Your task to perform on an android device: Open internet settings Image 0: 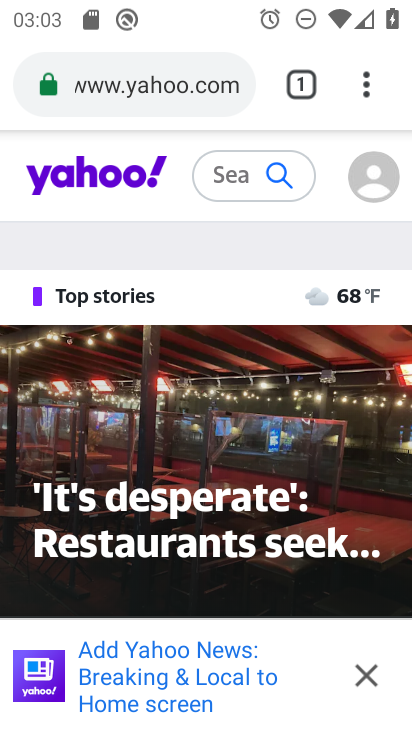
Step 0: press home button
Your task to perform on an android device: Open internet settings Image 1: 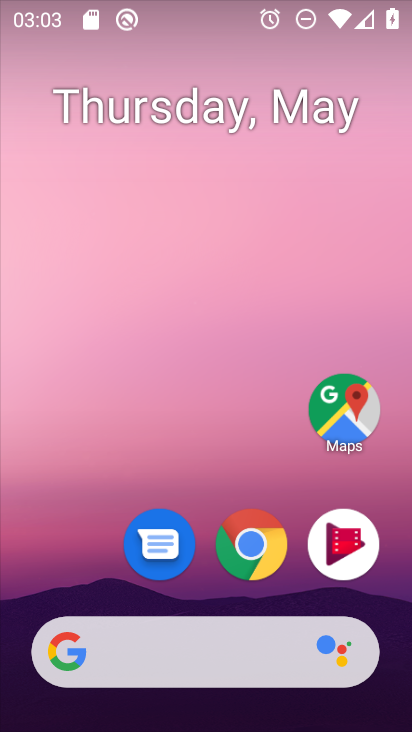
Step 1: drag from (53, 575) to (58, 168)
Your task to perform on an android device: Open internet settings Image 2: 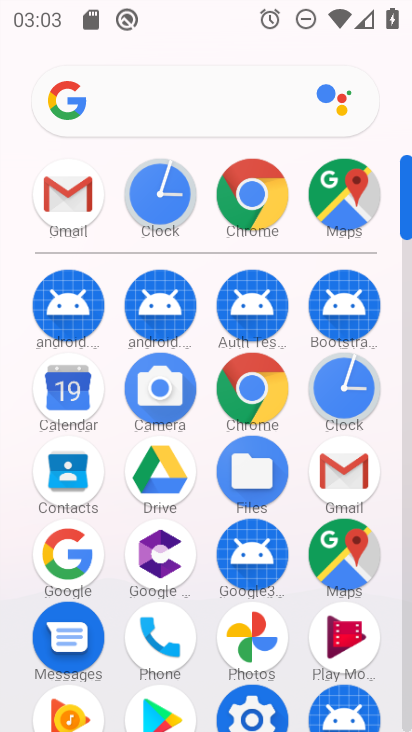
Step 2: drag from (27, 585) to (0, 446)
Your task to perform on an android device: Open internet settings Image 3: 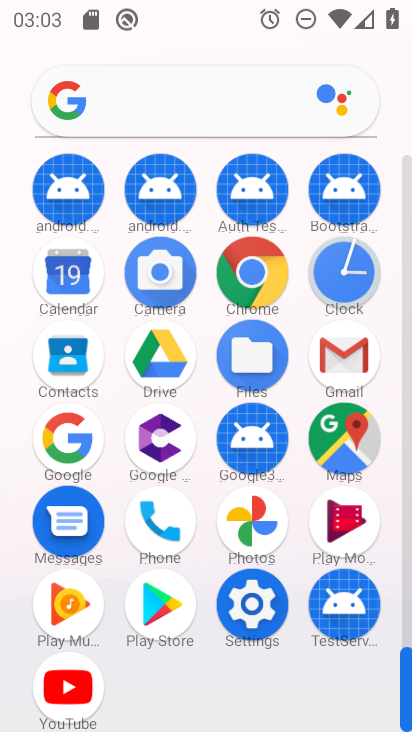
Step 3: click (259, 620)
Your task to perform on an android device: Open internet settings Image 4: 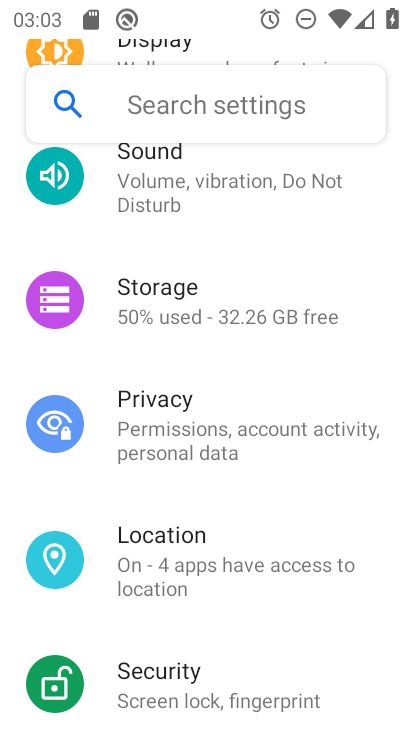
Step 4: drag from (360, 669) to (375, 561)
Your task to perform on an android device: Open internet settings Image 5: 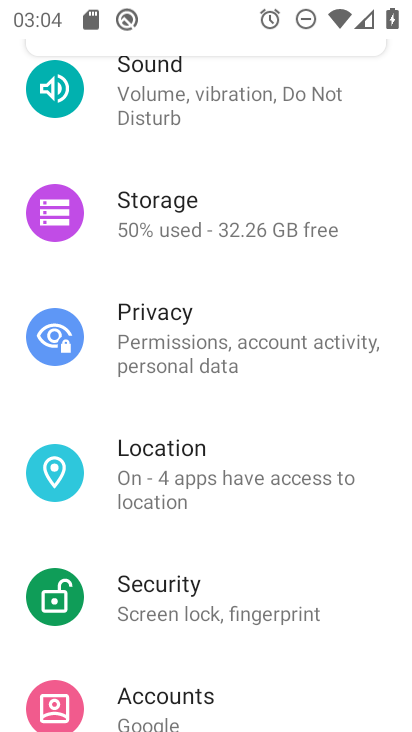
Step 5: drag from (362, 684) to (358, 516)
Your task to perform on an android device: Open internet settings Image 6: 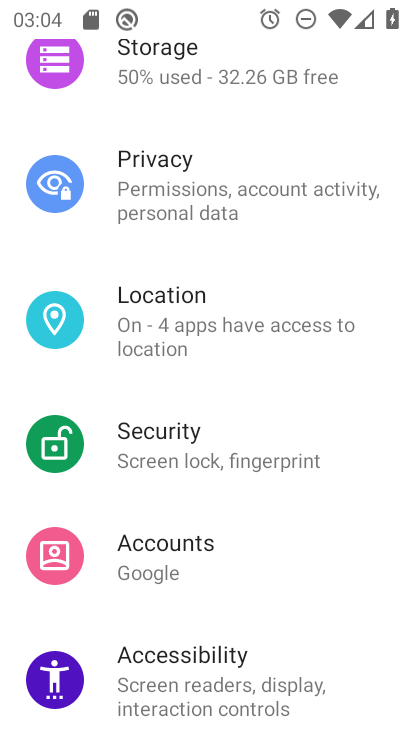
Step 6: drag from (345, 648) to (350, 457)
Your task to perform on an android device: Open internet settings Image 7: 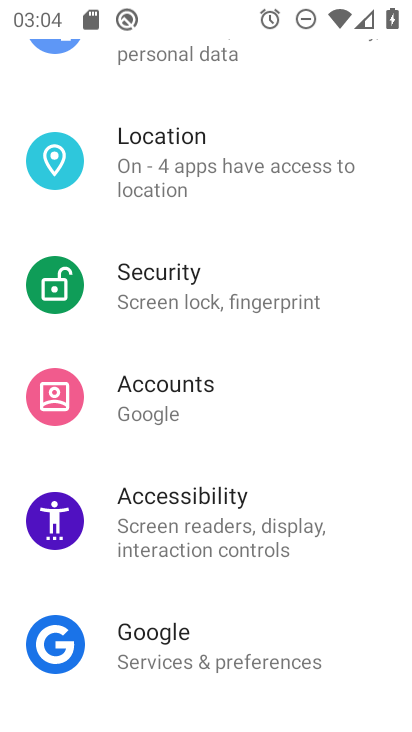
Step 7: drag from (372, 275) to (369, 328)
Your task to perform on an android device: Open internet settings Image 8: 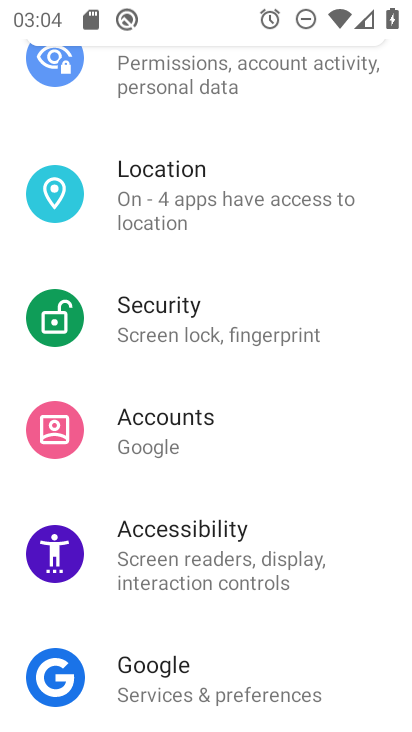
Step 8: drag from (369, 250) to (372, 375)
Your task to perform on an android device: Open internet settings Image 9: 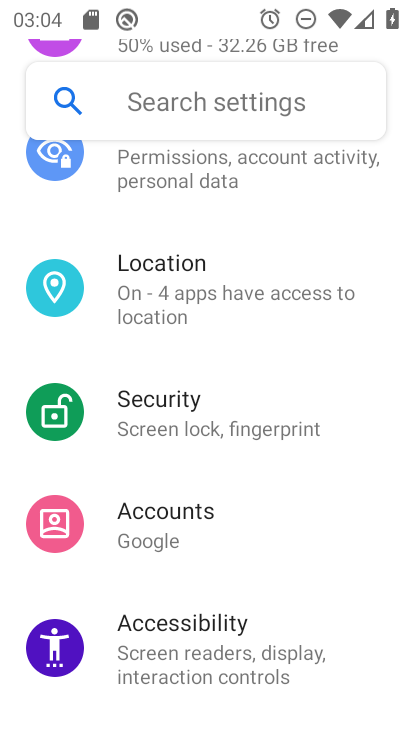
Step 9: drag from (369, 234) to (362, 349)
Your task to perform on an android device: Open internet settings Image 10: 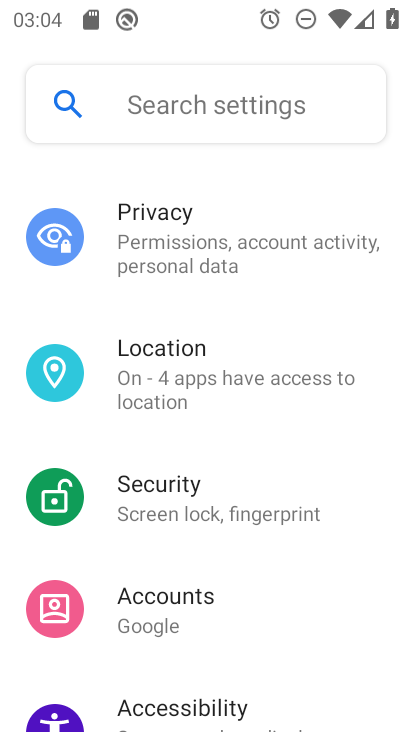
Step 10: drag from (366, 200) to (352, 323)
Your task to perform on an android device: Open internet settings Image 11: 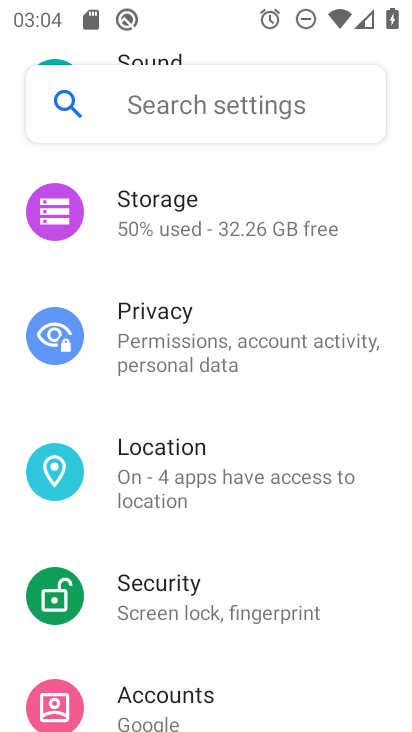
Step 11: drag from (343, 228) to (337, 310)
Your task to perform on an android device: Open internet settings Image 12: 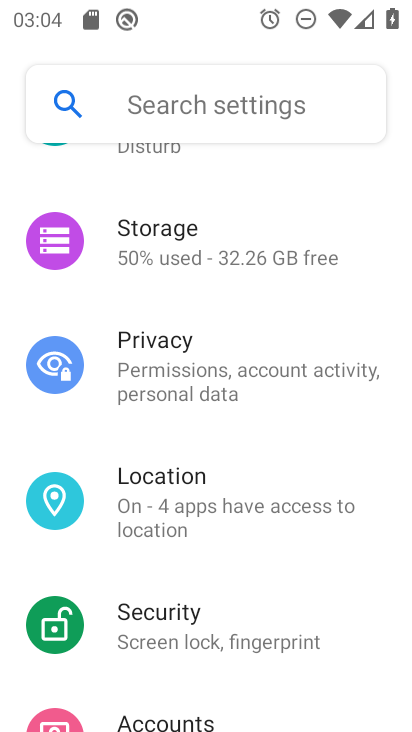
Step 12: drag from (346, 238) to (348, 405)
Your task to perform on an android device: Open internet settings Image 13: 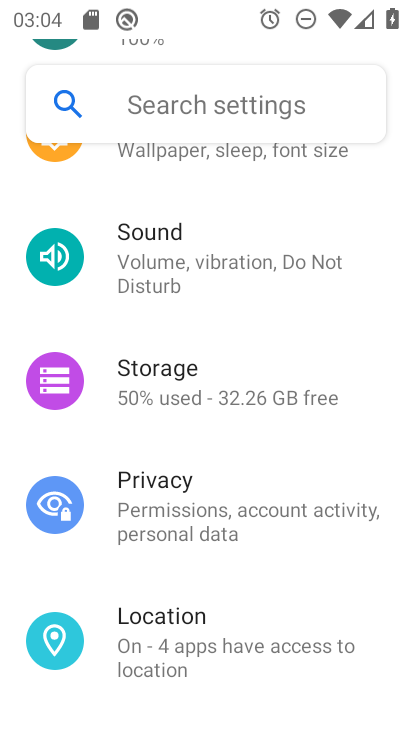
Step 13: drag from (354, 247) to (355, 392)
Your task to perform on an android device: Open internet settings Image 14: 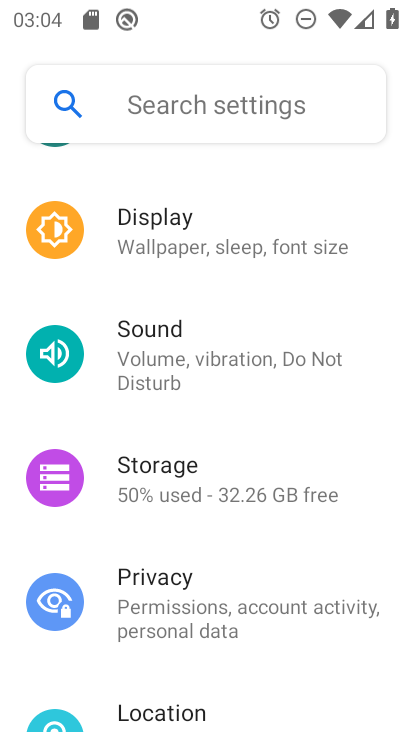
Step 14: drag from (366, 257) to (364, 400)
Your task to perform on an android device: Open internet settings Image 15: 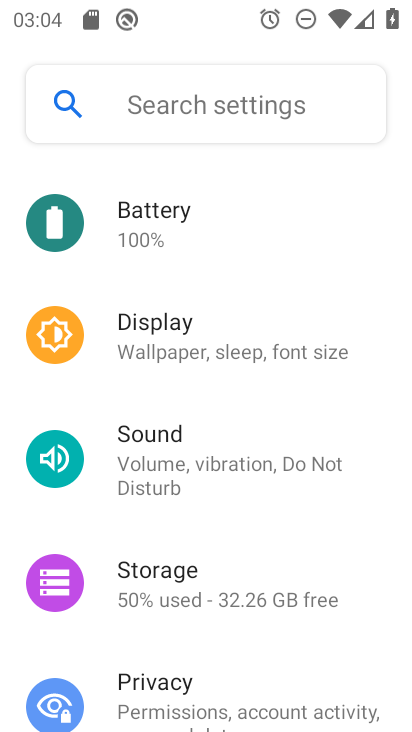
Step 15: drag from (358, 258) to (348, 418)
Your task to perform on an android device: Open internet settings Image 16: 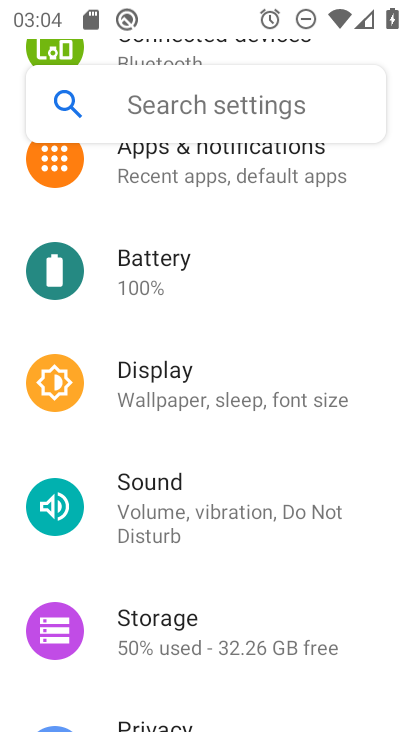
Step 16: drag from (340, 223) to (336, 372)
Your task to perform on an android device: Open internet settings Image 17: 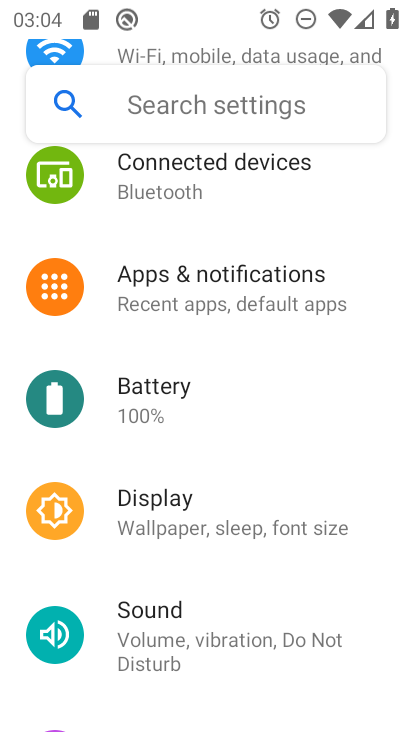
Step 17: drag from (335, 203) to (338, 382)
Your task to perform on an android device: Open internet settings Image 18: 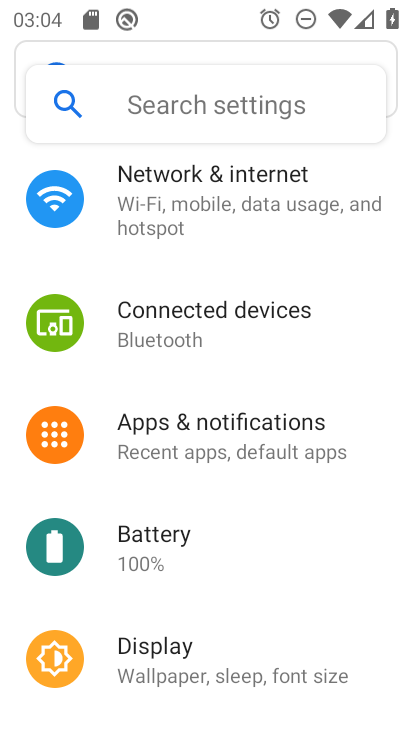
Step 18: drag from (371, 252) to (348, 412)
Your task to perform on an android device: Open internet settings Image 19: 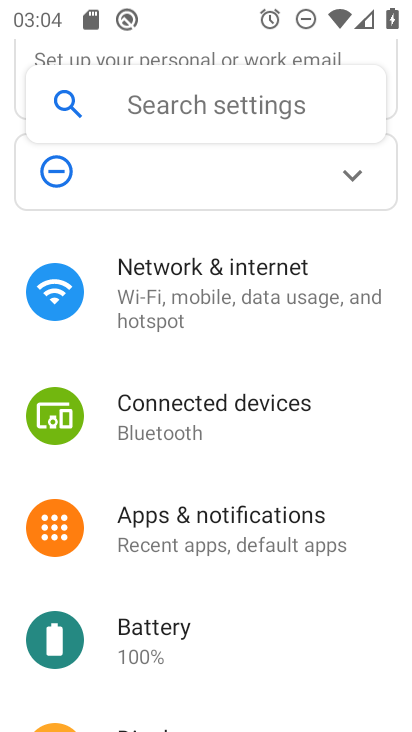
Step 19: click (312, 299)
Your task to perform on an android device: Open internet settings Image 20: 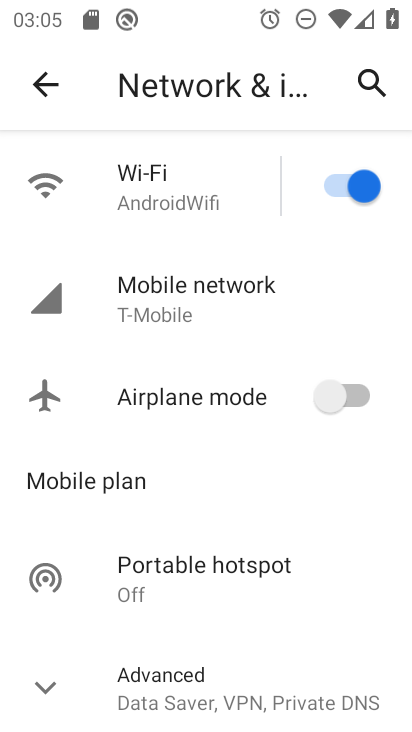
Step 20: task complete